Your task to perform on an android device: Open location settings Image 0: 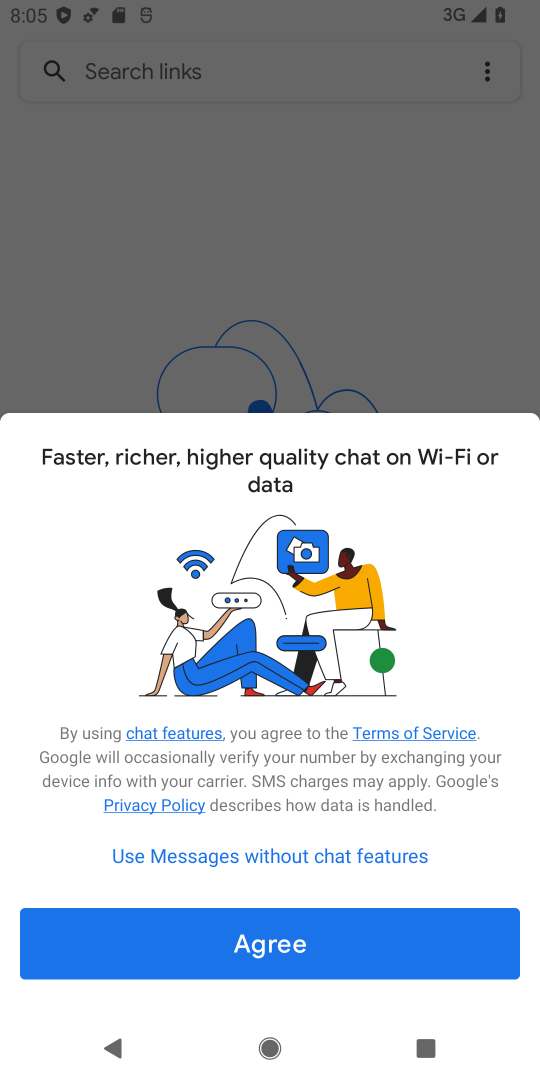
Step 0: press home button
Your task to perform on an android device: Open location settings Image 1: 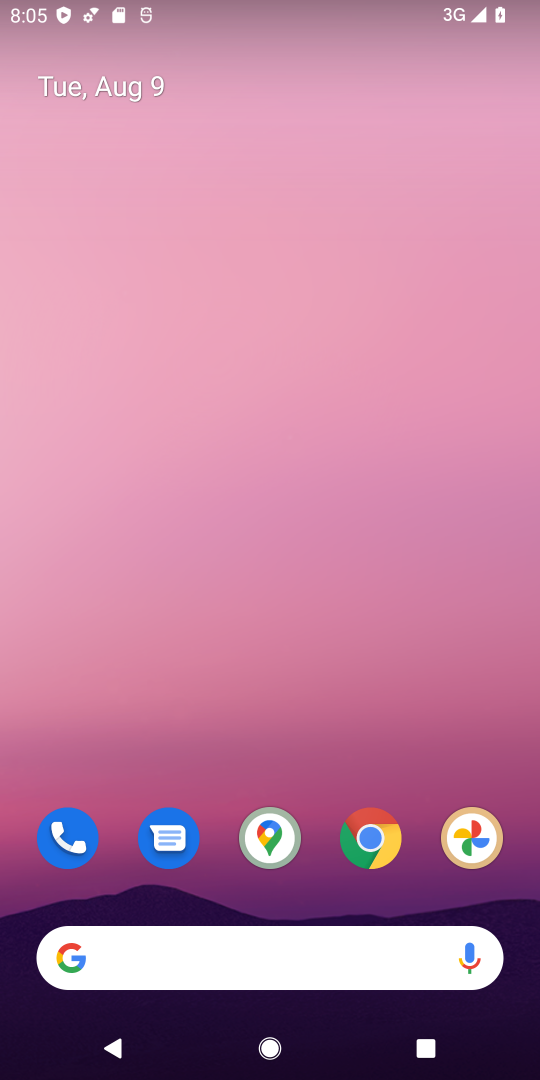
Step 1: drag from (263, 942) to (134, 36)
Your task to perform on an android device: Open location settings Image 2: 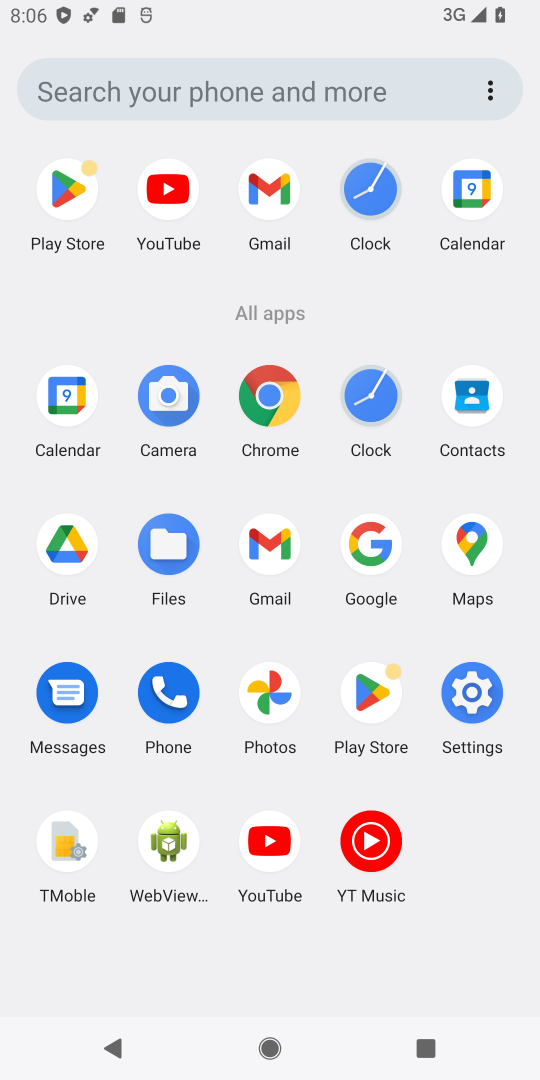
Step 2: click (471, 704)
Your task to perform on an android device: Open location settings Image 3: 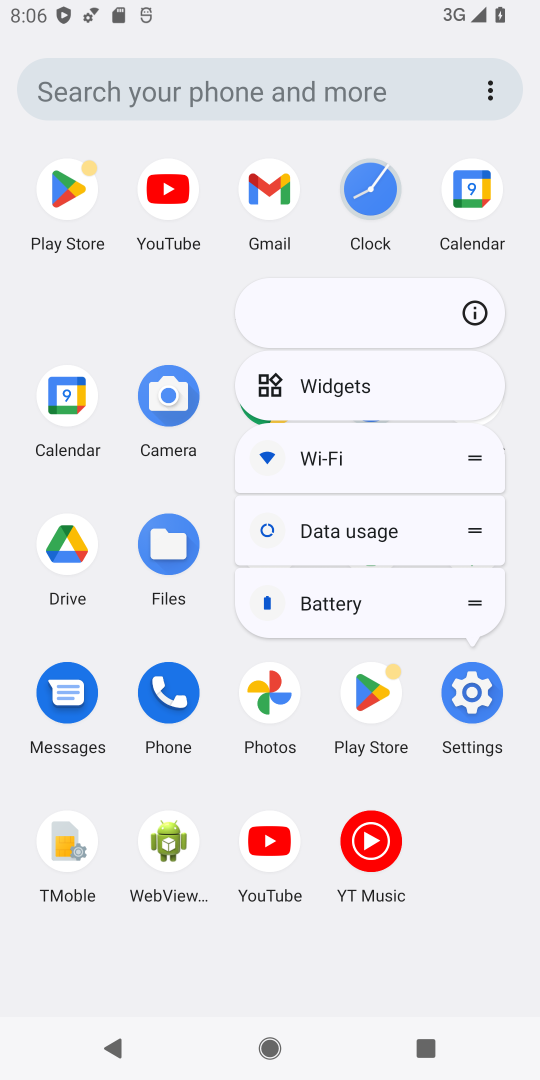
Step 3: click (488, 705)
Your task to perform on an android device: Open location settings Image 4: 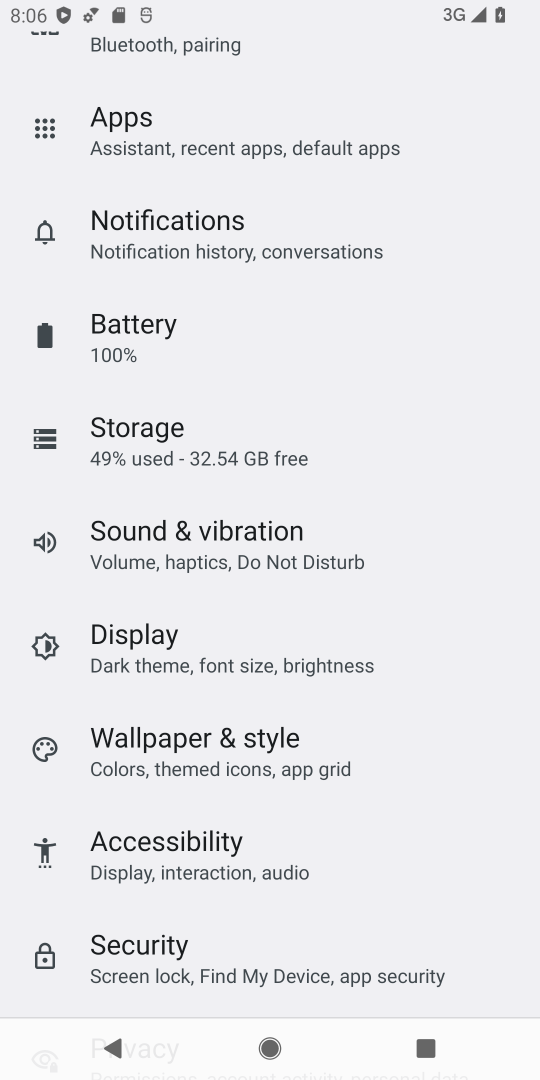
Step 4: drag from (230, 798) to (214, 215)
Your task to perform on an android device: Open location settings Image 5: 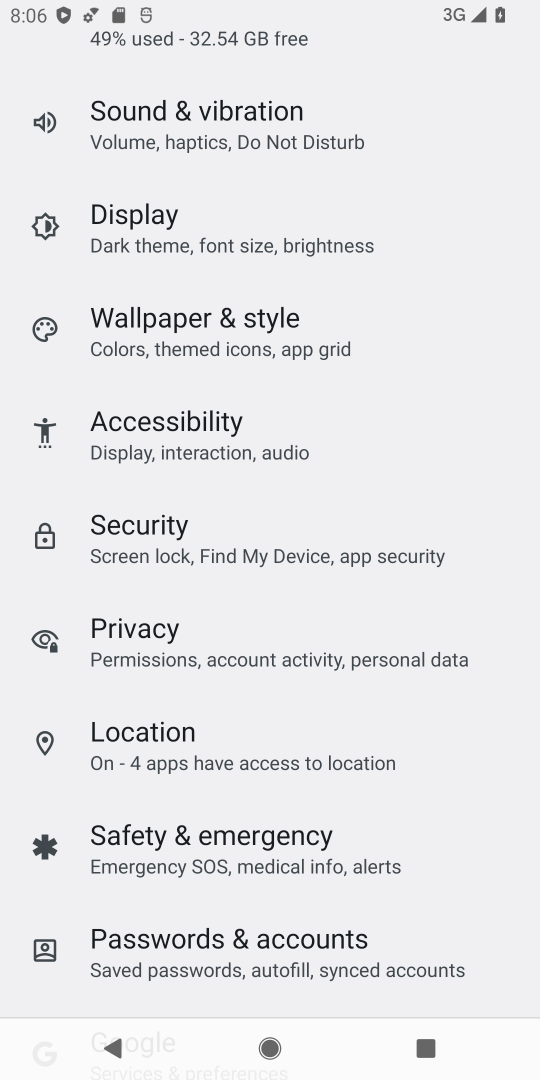
Step 5: click (155, 761)
Your task to perform on an android device: Open location settings Image 6: 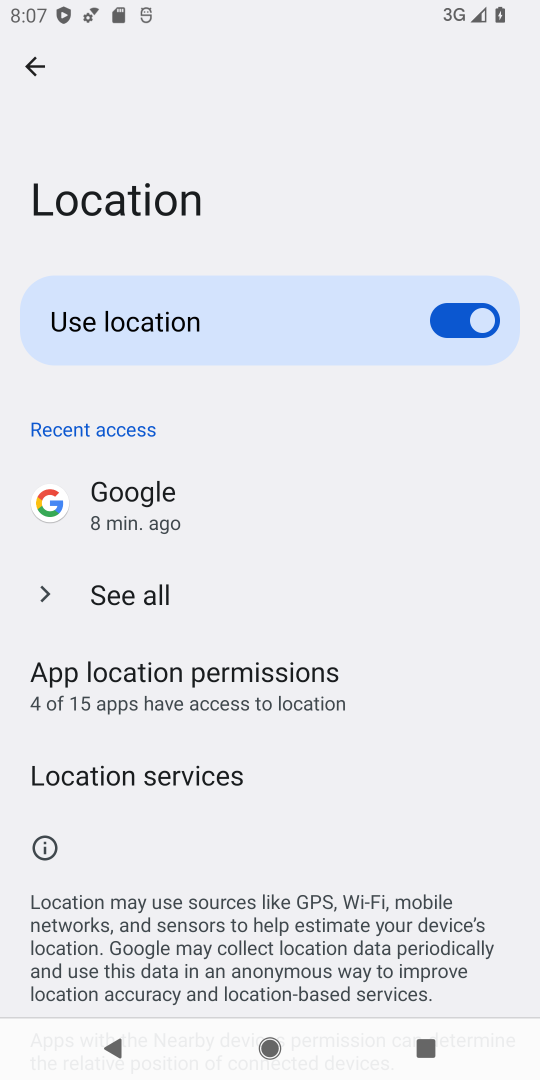
Step 6: task complete